Your task to perform on an android device: Turn on the flashlight Image 0: 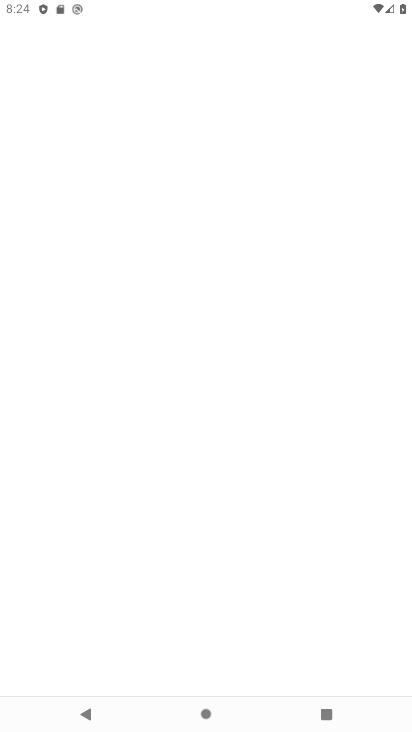
Step 0: drag from (248, 661) to (160, 235)
Your task to perform on an android device: Turn on the flashlight Image 1: 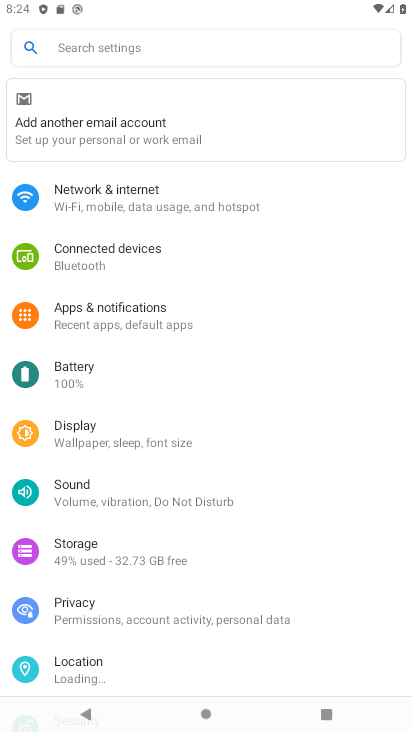
Step 1: task complete